Your task to perform on an android device: Toggle the flashlight Image 0: 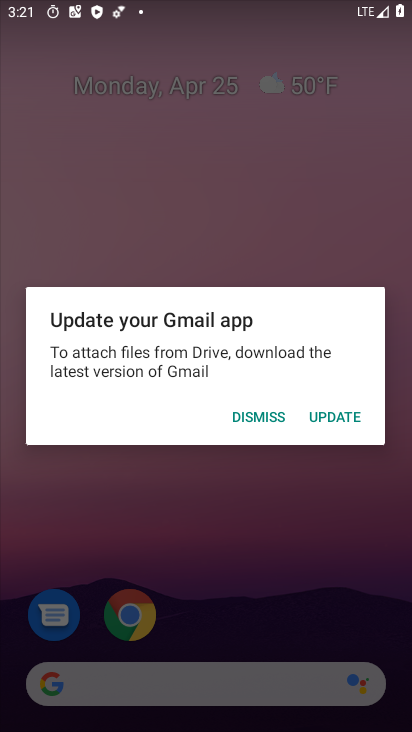
Step 0: press home button
Your task to perform on an android device: Toggle the flashlight Image 1: 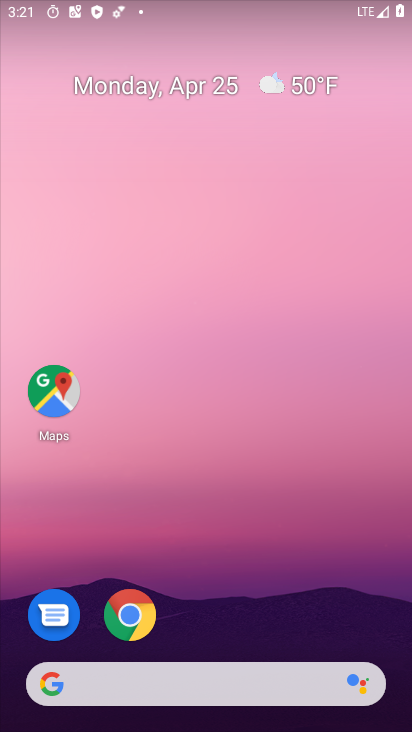
Step 1: drag from (193, 727) to (176, 252)
Your task to perform on an android device: Toggle the flashlight Image 2: 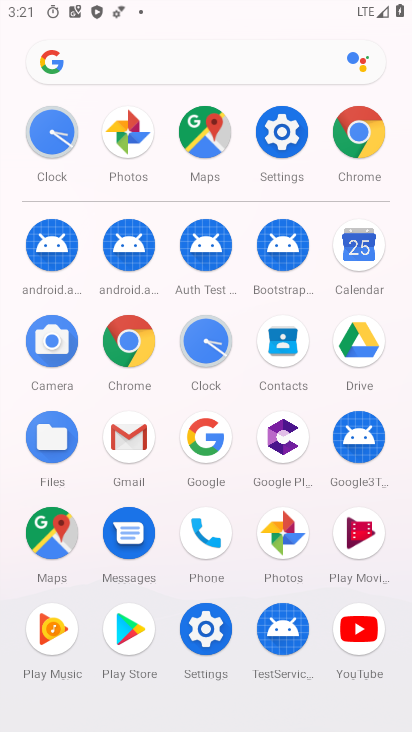
Step 2: click (278, 135)
Your task to perform on an android device: Toggle the flashlight Image 3: 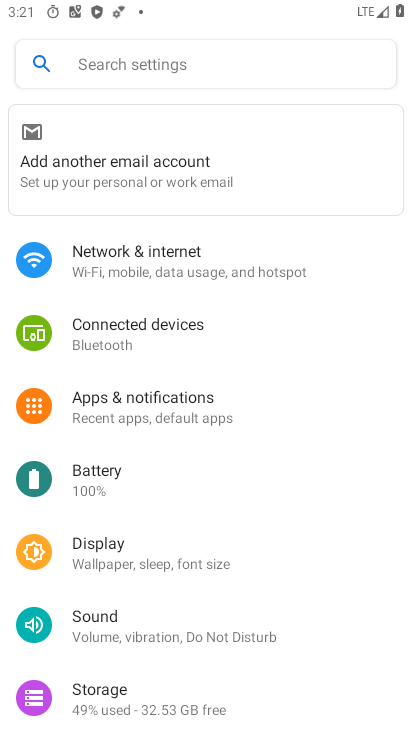
Step 3: task complete